Your task to perform on an android device: clear all cookies in the chrome app Image 0: 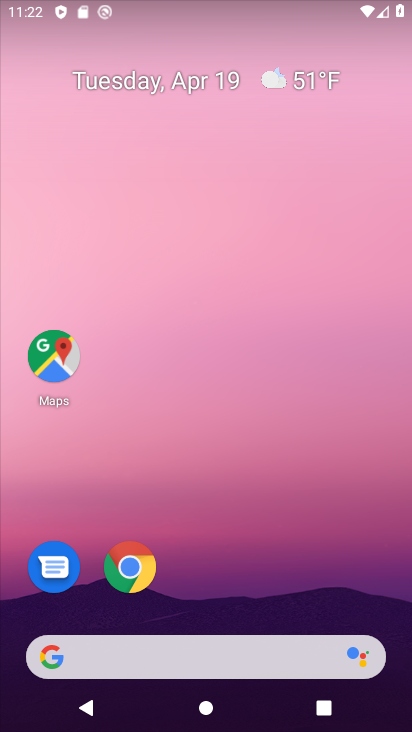
Step 0: click (142, 568)
Your task to perform on an android device: clear all cookies in the chrome app Image 1: 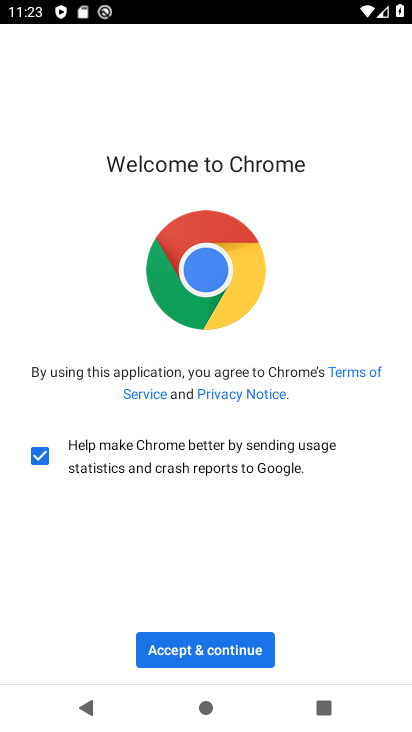
Step 1: click (233, 650)
Your task to perform on an android device: clear all cookies in the chrome app Image 2: 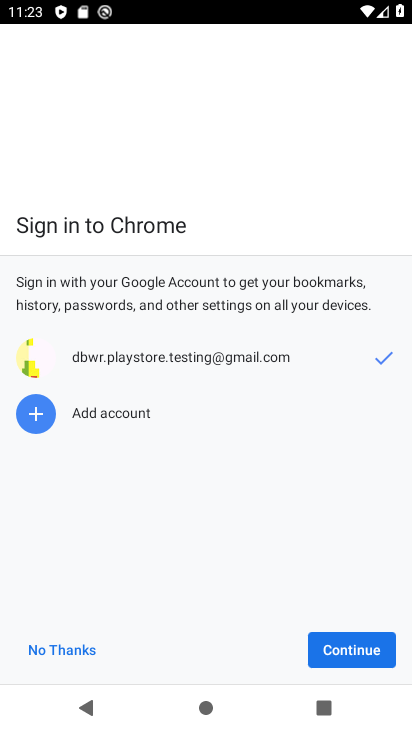
Step 2: click (345, 649)
Your task to perform on an android device: clear all cookies in the chrome app Image 3: 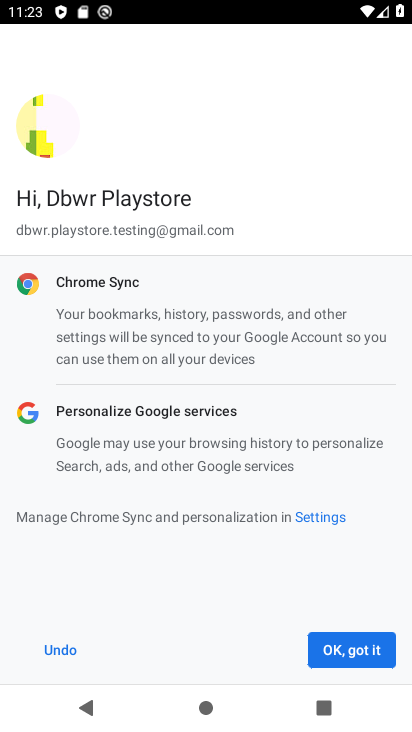
Step 3: click (363, 648)
Your task to perform on an android device: clear all cookies in the chrome app Image 4: 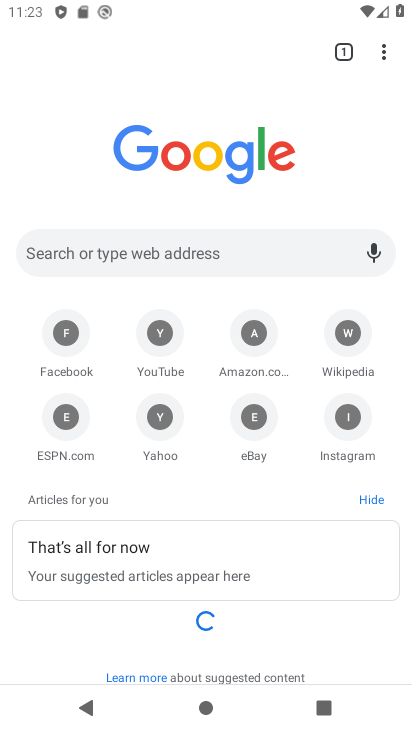
Step 4: click (384, 60)
Your task to perform on an android device: clear all cookies in the chrome app Image 5: 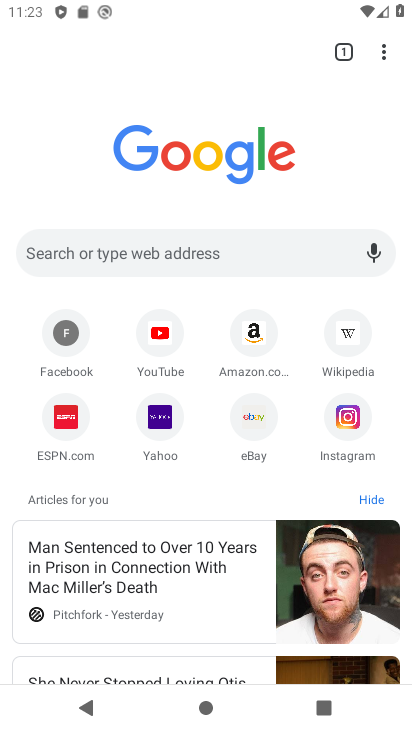
Step 5: click (390, 51)
Your task to perform on an android device: clear all cookies in the chrome app Image 6: 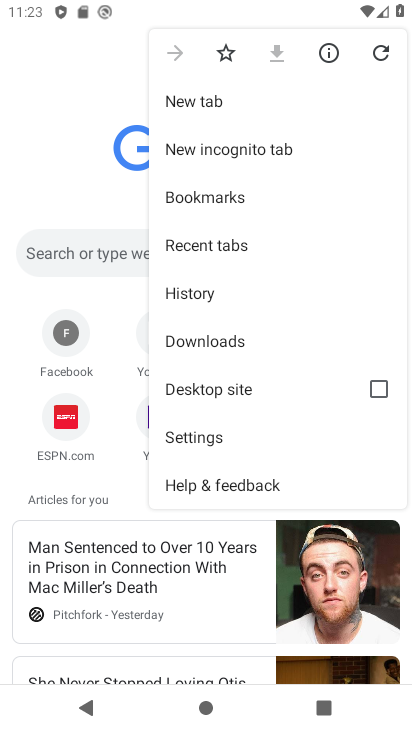
Step 6: click (197, 435)
Your task to perform on an android device: clear all cookies in the chrome app Image 7: 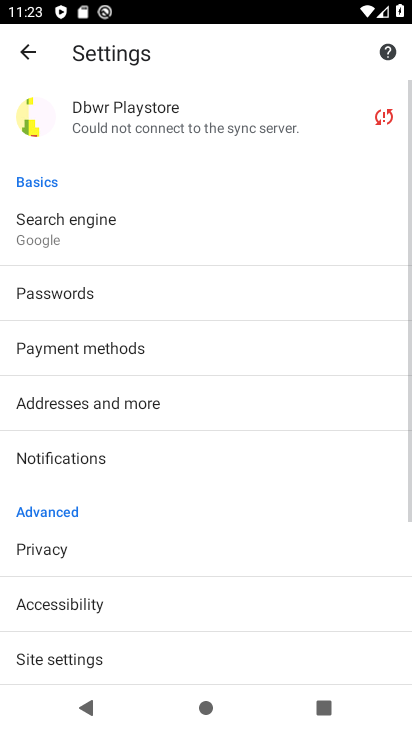
Step 7: click (39, 42)
Your task to perform on an android device: clear all cookies in the chrome app Image 8: 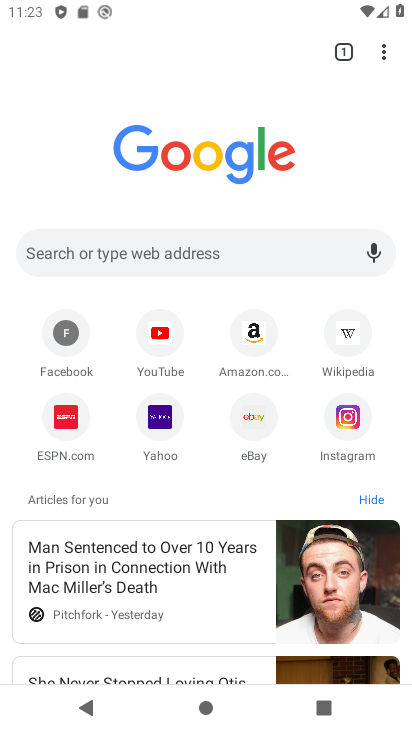
Step 8: click (384, 53)
Your task to perform on an android device: clear all cookies in the chrome app Image 9: 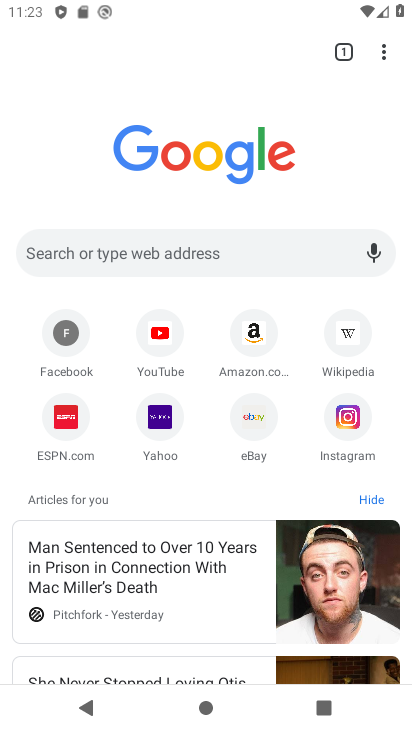
Step 9: click (389, 57)
Your task to perform on an android device: clear all cookies in the chrome app Image 10: 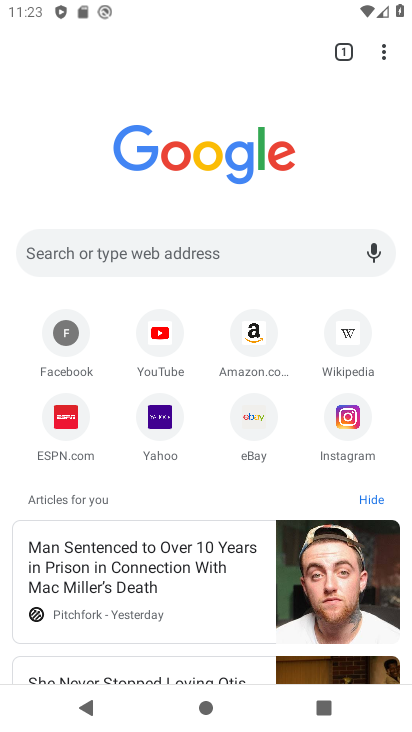
Step 10: click (382, 55)
Your task to perform on an android device: clear all cookies in the chrome app Image 11: 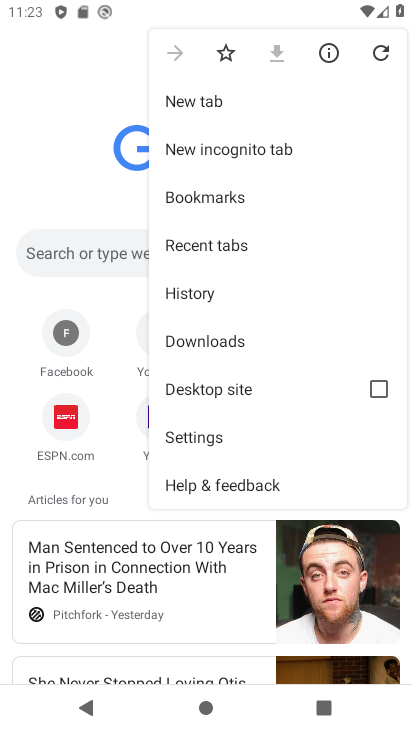
Step 11: click (202, 296)
Your task to perform on an android device: clear all cookies in the chrome app Image 12: 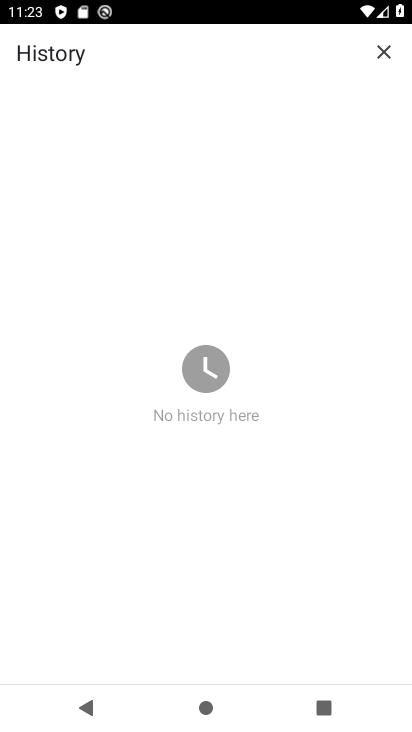
Step 12: task complete